Your task to perform on an android device: toggle show notifications on the lock screen Image 0: 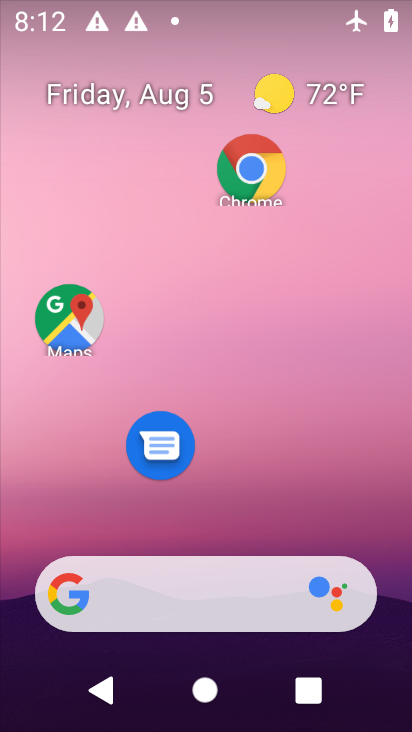
Step 0: drag from (209, 521) to (196, 133)
Your task to perform on an android device: toggle show notifications on the lock screen Image 1: 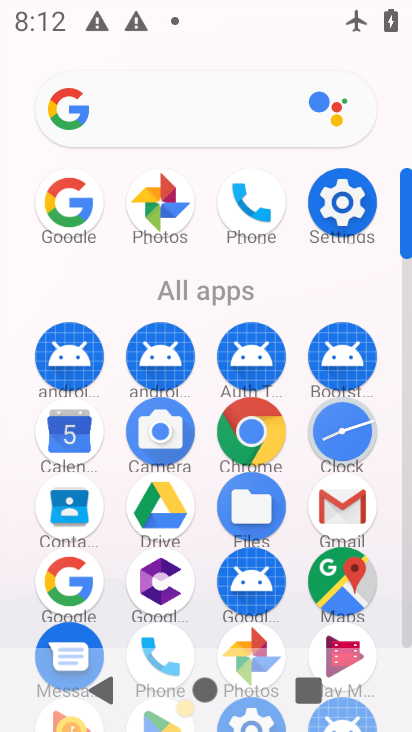
Step 1: click (330, 201)
Your task to perform on an android device: toggle show notifications on the lock screen Image 2: 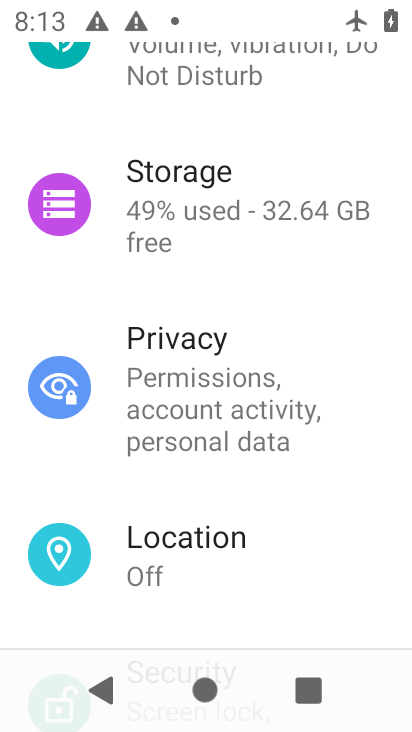
Step 2: drag from (215, 189) to (217, 478)
Your task to perform on an android device: toggle show notifications on the lock screen Image 3: 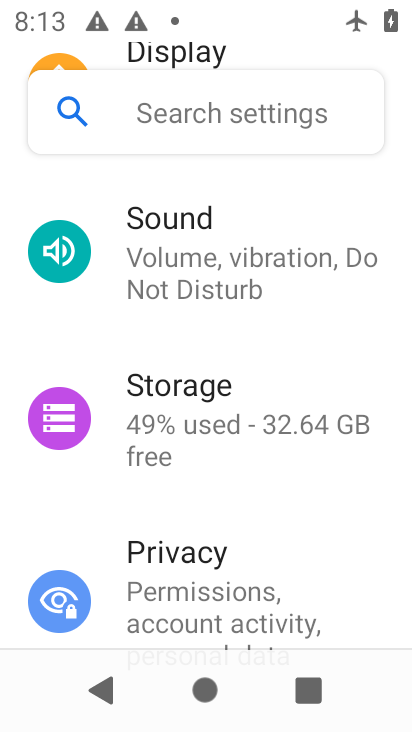
Step 3: drag from (223, 233) to (236, 515)
Your task to perform on an android device: toggle show notifications on the lock screen Image 4: 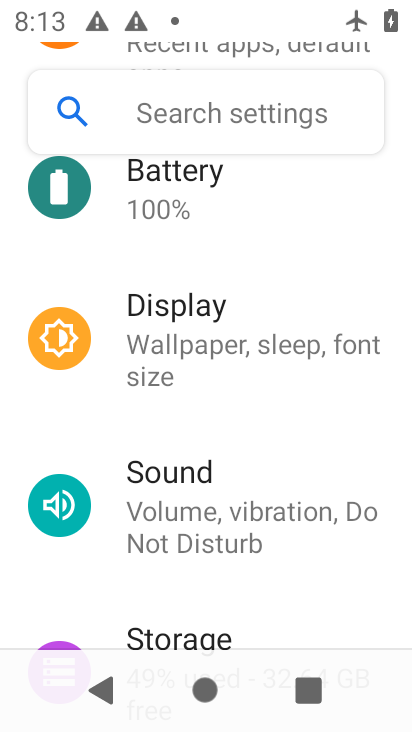
Step 4: drag from (234, 211) to (240, 455)
Your task to perform on an android device: toggle show notifications on the lock screen Image 5: 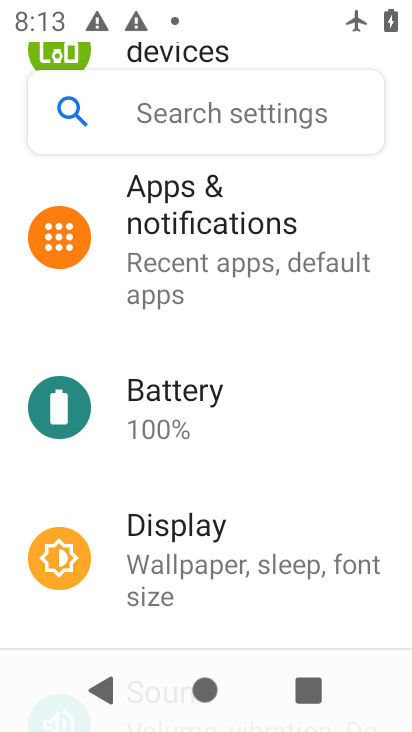
Step 5: click (236, 223)
Your task to perform on an android device: toggle show notifications on the lock screen Image 6: 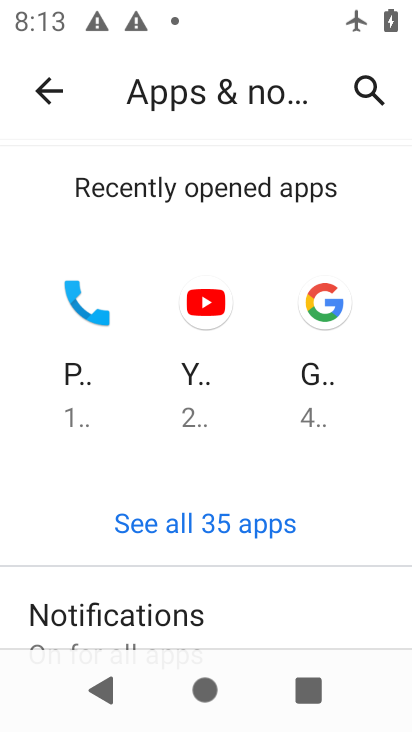
Step 6: click (251, 605)
Your task to perform on an android device: toggle show notifications on the lock screen Image 7: 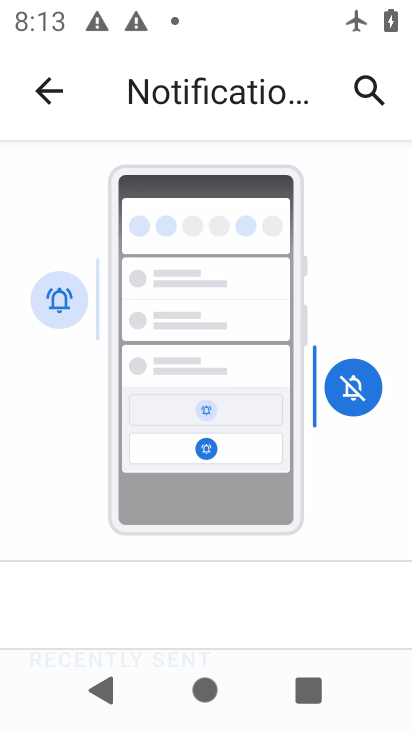
Step 7: drag from (248, 558) to (256, 263)
Your task to perform on an android device: toggle show notifications on the lock screen Image 8: 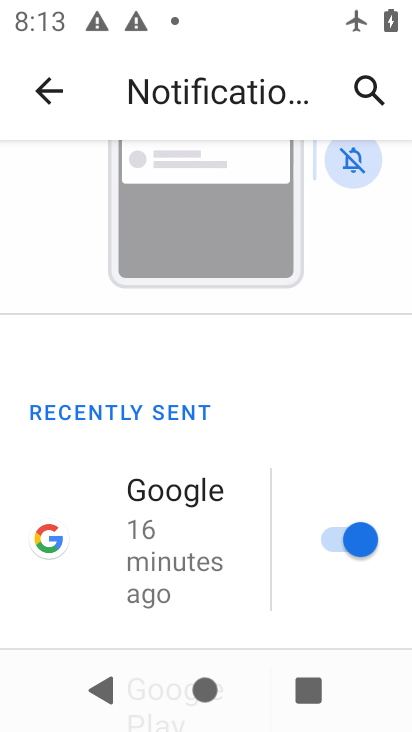
Step 8: drag from (258, 499) to (268, 241)
Your task to perform on an android device: toggle show notifications on the lock screen Image 9: 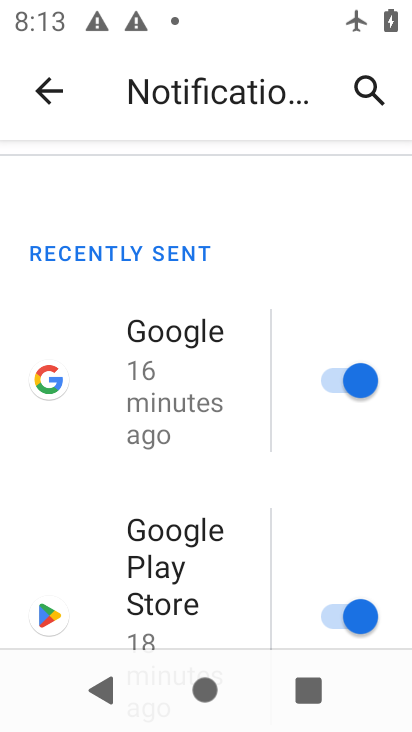
Step 9: drag from (268, 548) to (264, 232)
Your task to perform on an android device: toggle show notifications on the lock screen Image 10: 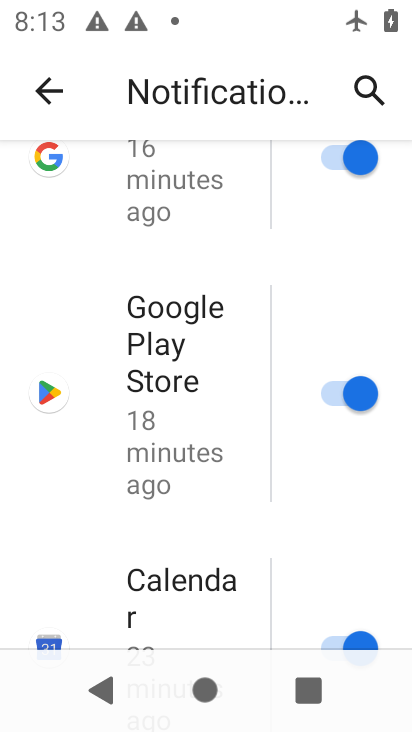
Step 10: drag from (256, 576) to (260, 236)
Your task to perform on an android device: toggle show notifications on the lock screen Image 11: 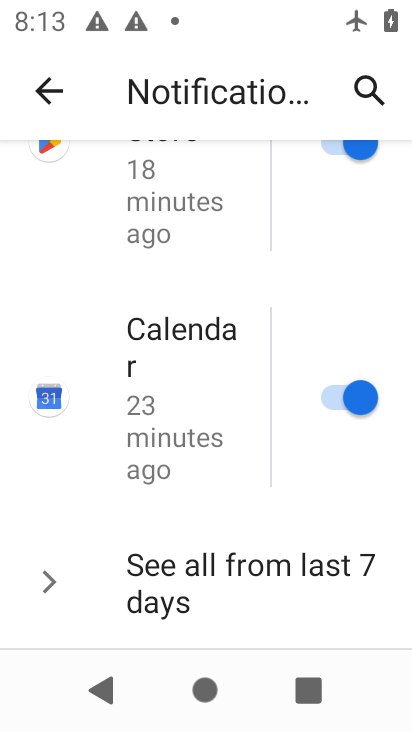
Step 11: drag from (289, 592) to (286, 282)
Your task to perform on an android device: toggle show notifications on the lock screen Image 12: 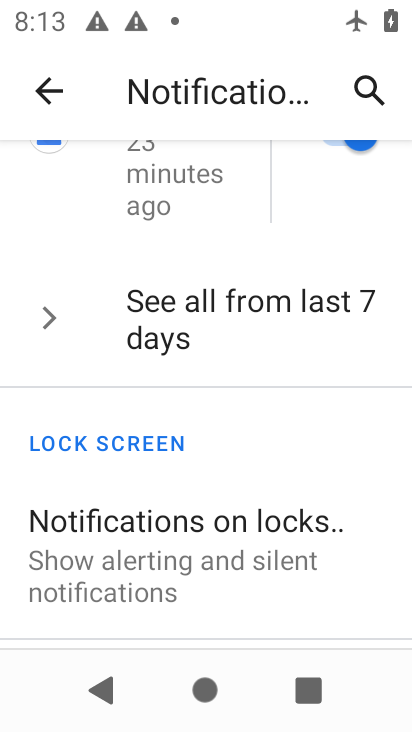
Step 12: click (308, 535)
Your task to perform on an android device: toggle show notifications on the lock screen Image 13: 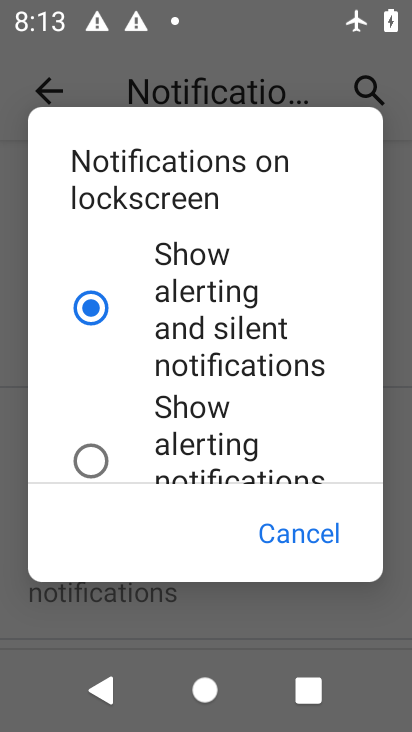
Step 13: drag from (219, 453) to (215, 263)
Your task to perform on an android device: toggle show notifications on the lock screen Image 14: 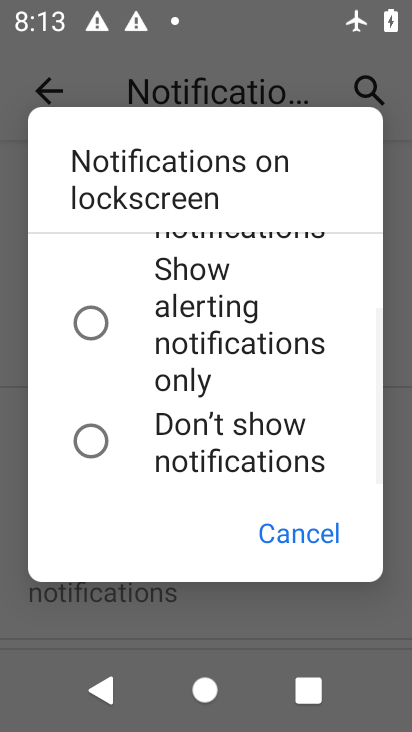
Step 14: click (174, 440)
Your task to perform on an android device: toggle show notifications on the lock screen Image 15: 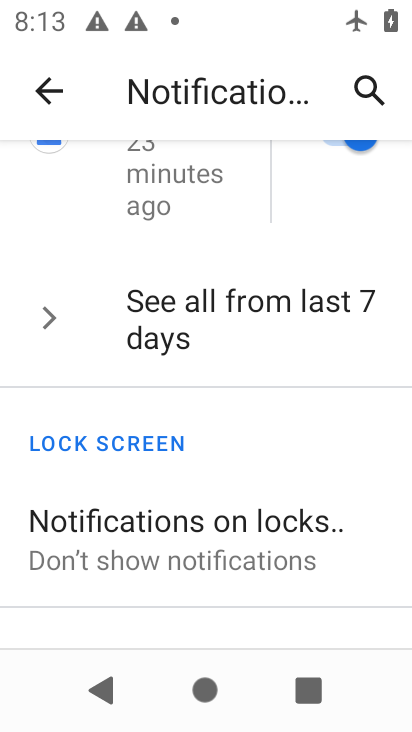
Step 15: task complete